Your task to perform on an android device: turn off location history Image 0: 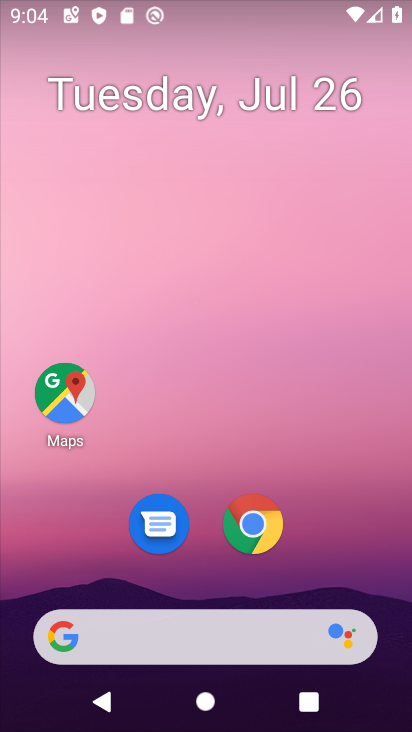
Step 0: press home button
Your task to perform on an android device: turn off location history Image 1: 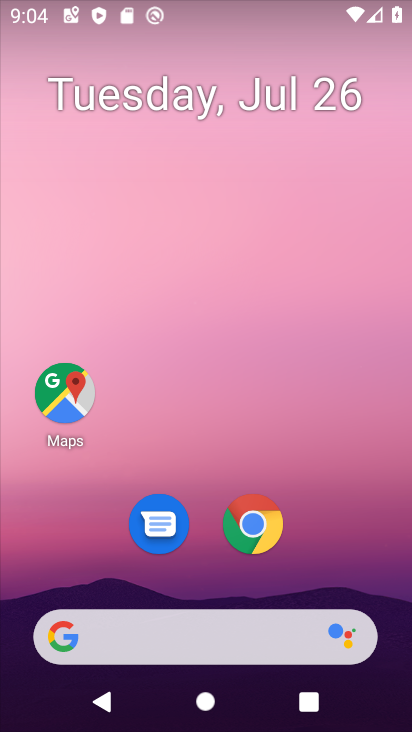
Step 1: click (76, 391)
Your task to perform on an android device: turn off location history Image 2: 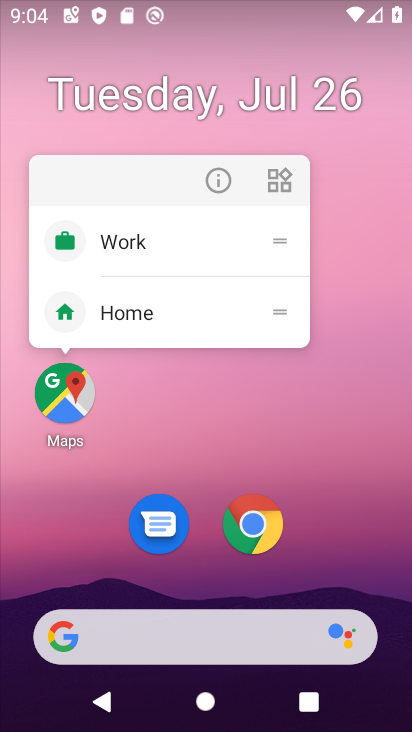
Step 2: click (76, 393)
Your task to perform on an android device: turn off location history Image 3: 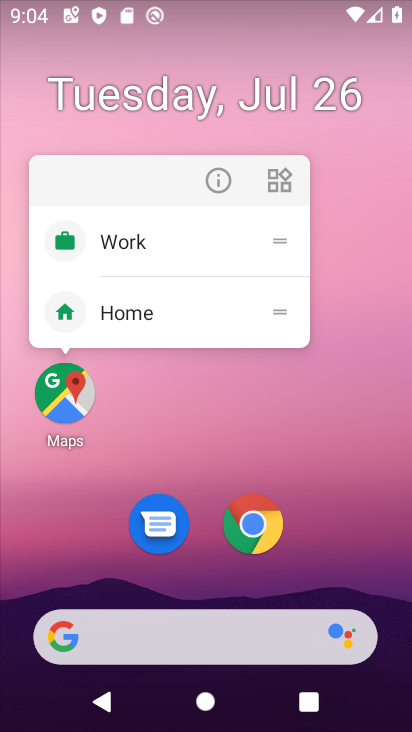
Step 3: click (70, 393)
Your task to perform on an android device: turn off location history Image 4: 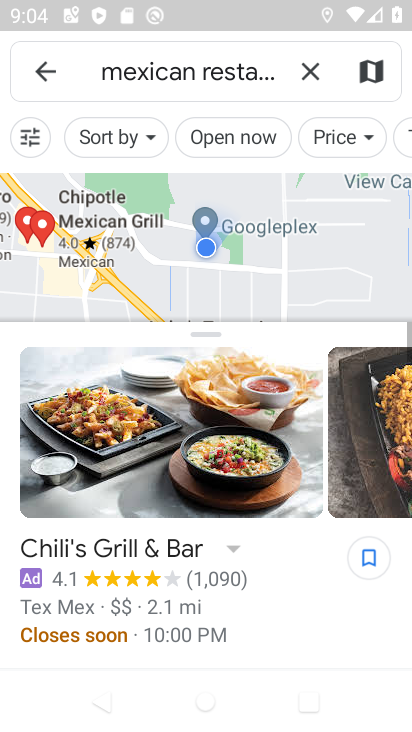
Step 4: click (48, 71)
Your task to perform on an android device: turn off location history Image 5: 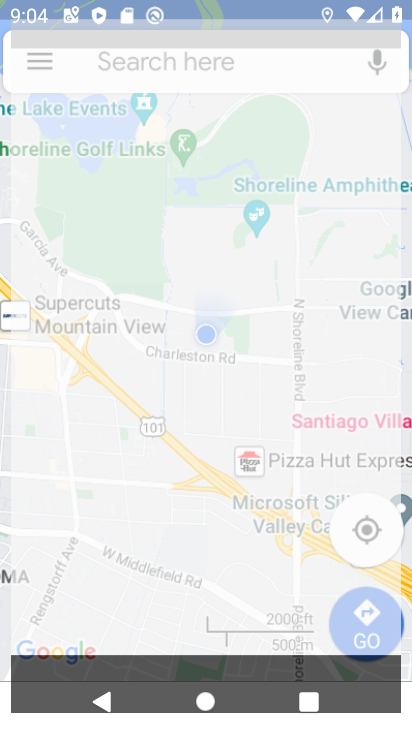
Step 5: click (48, 72)
Your task to perform on an android device: turn off location history Image 6: 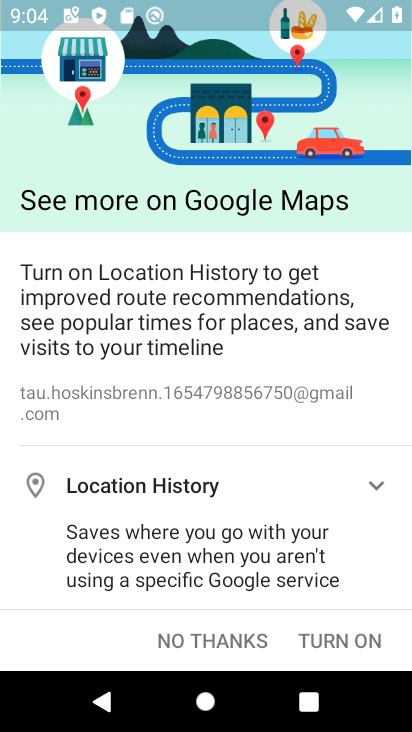
Step 6: click (199, 642)
Your task to perform on an android device: turn off location history Image 7: 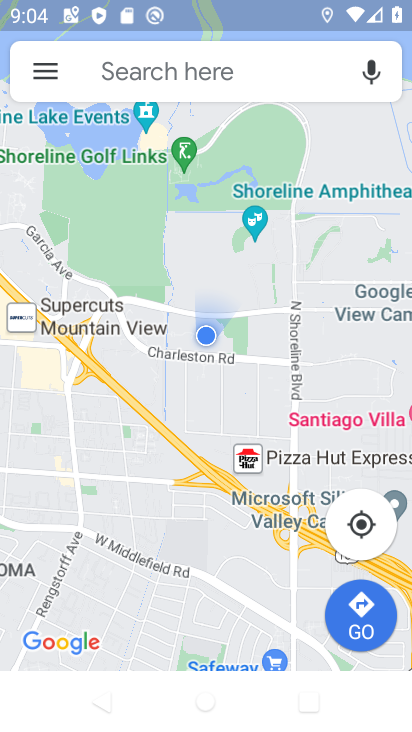
Step 7: click (50, 69)
Your task to perform on an android device: turn off location history Image 8: 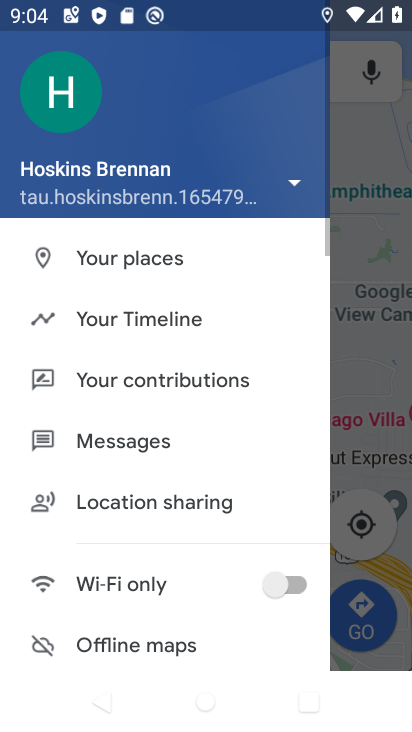
Step 8: click (169, 321)
Your task to perform on an android device: turn off location history Image 9: 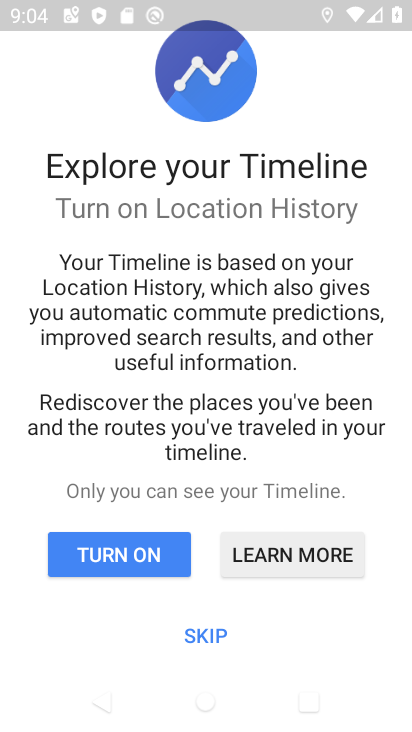
Step 9: click (218, 633)
Your task to perform on an android device: turn off location history Image 10: 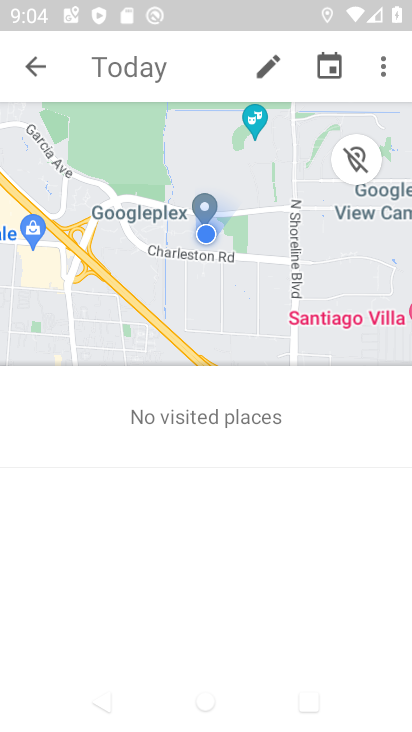
Step 10: click (384, 61)
Your task to perform on an android device: turn off location history Image 11: 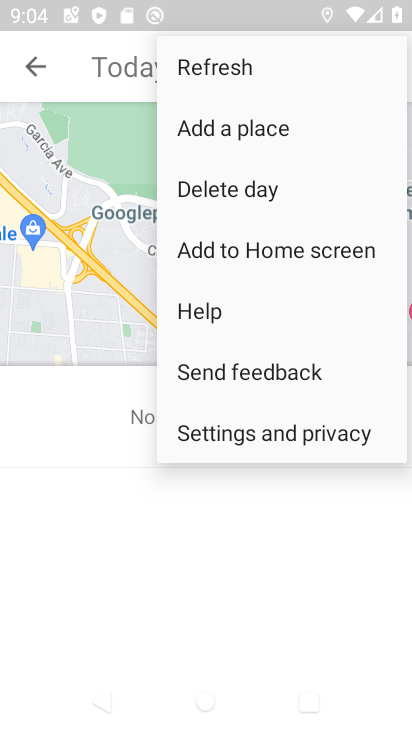
Step 11: click (248, 437)
Your task to perform on an android device: turn off location history Image 12: 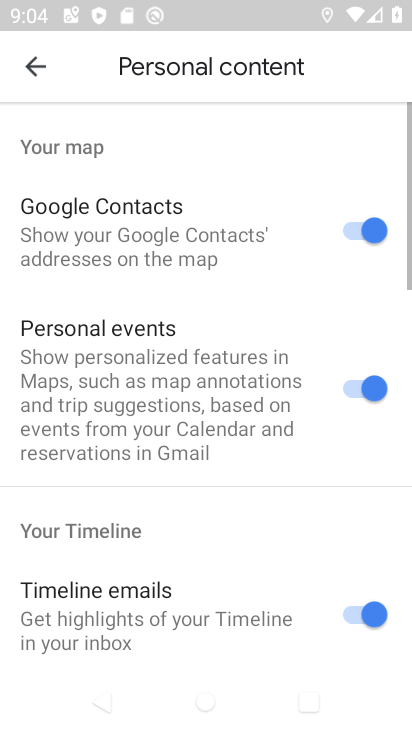
Step 12: drag from (198, 601) to (341, 133)
Your task to perform on an android device: turn off location history Image 13: 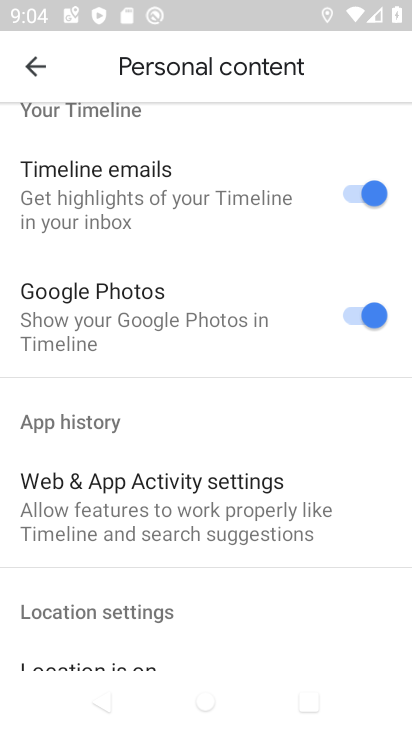
Step 13: drag from (222, 633) to (351, 133)
Your task to perform on an android device: turn off location history Image 14: 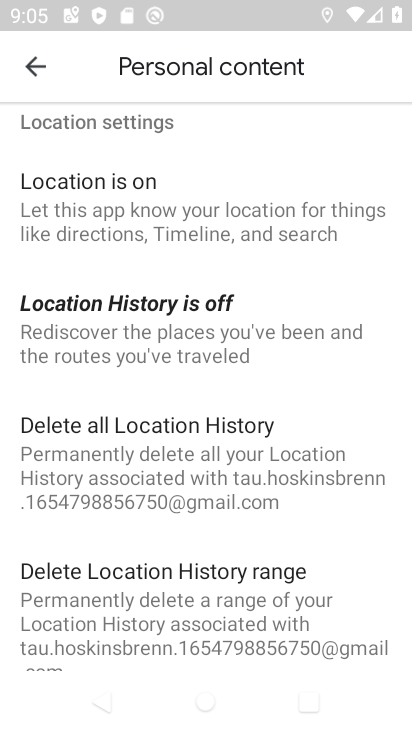
Step 14: click (177, 334)
Your task to perform on an android device: turn off location history Image 15: 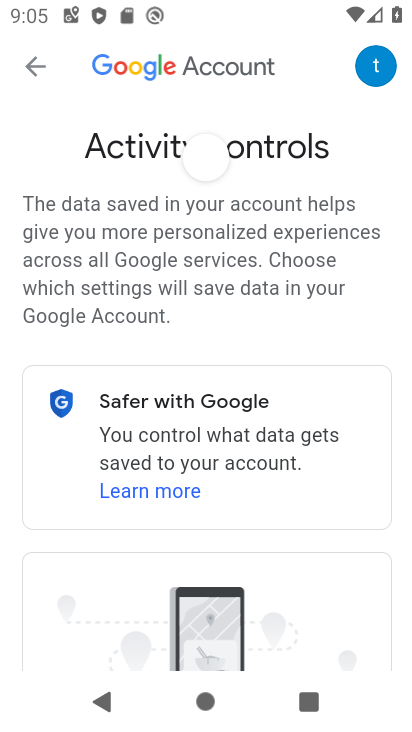
Step 15: task complete